Your task to perform on an android device: Open Maps and search for coffee Image 0: 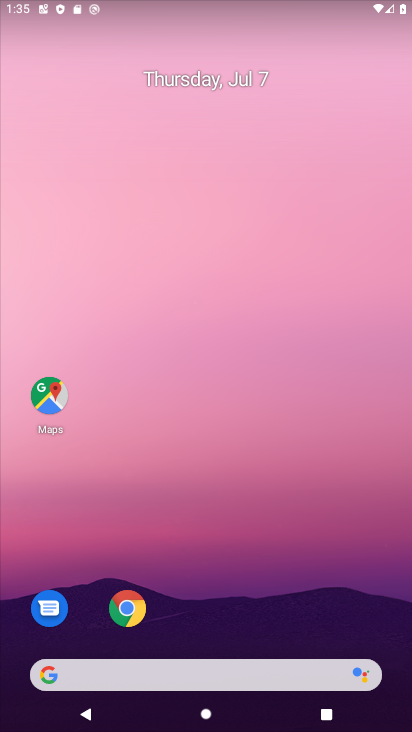
Step 0: drag from (205, 685) to (197, 28)
Your task to perform on an android device: Open Maps and search for coffee Image 1: 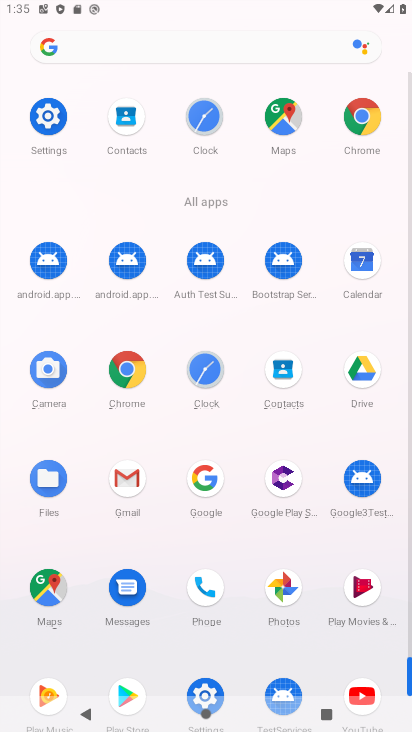
Step 1: click (39, 599)
Your task to perform on an android device: Open Maps and search for coffee Image 2: 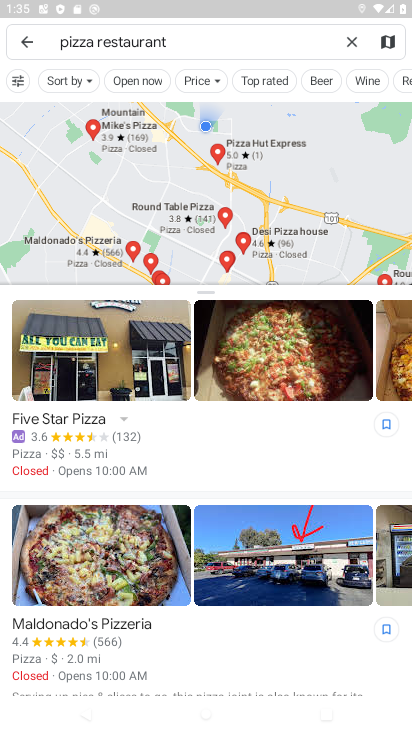
Step 2: click (349, 40)
Your task to perform on an android device: Open Maps and search for coffee Image 3: 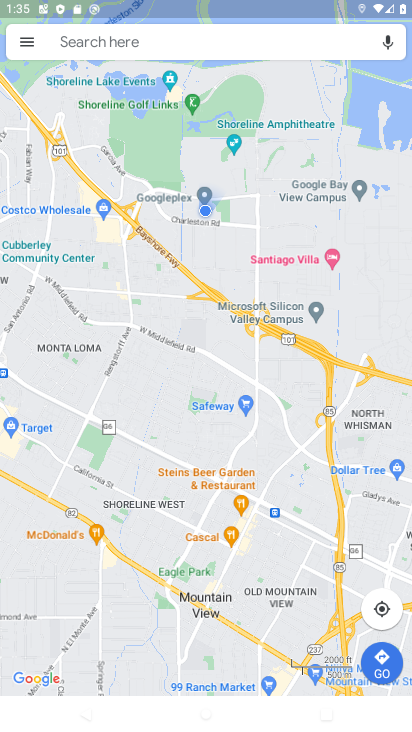
Step 3: click (260, 47)
Your task to perform on an android device: Open Maps and search for coffee Image 4: 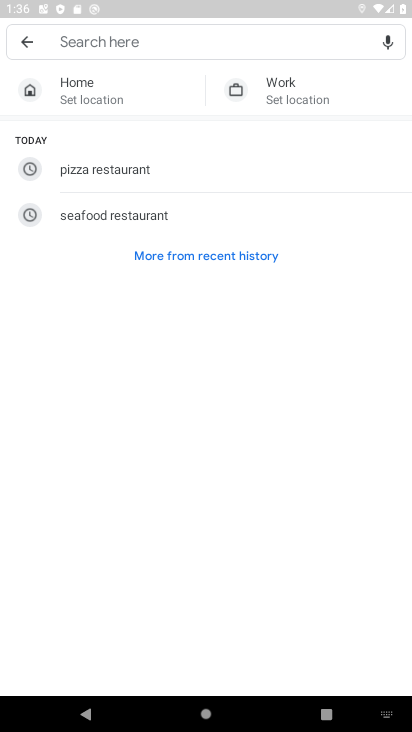
Step 4: type "coffee"
Your task to perform on an android device: Open Maps and search for coffee Image 5: 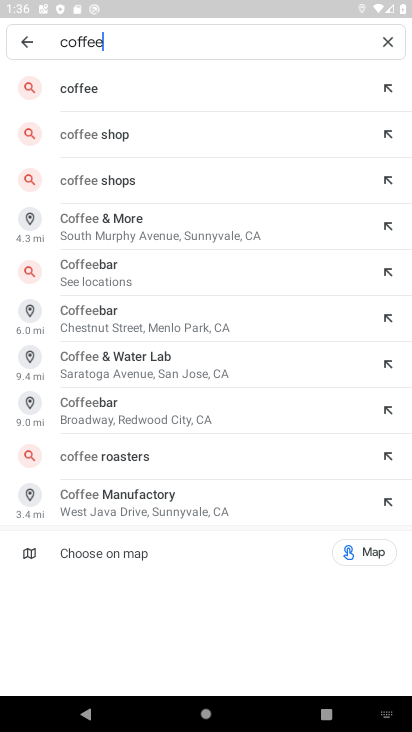
Step 5: click (114, 96)
Your task to perform on an android device: Open Maps and search for coffee Image 6: 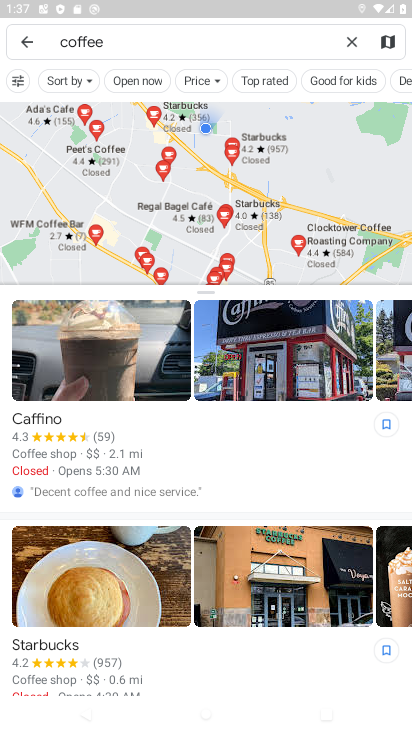
Step 6: task complete